Your task to perform on an android device: Do I have any events tomorrow? Image 0: 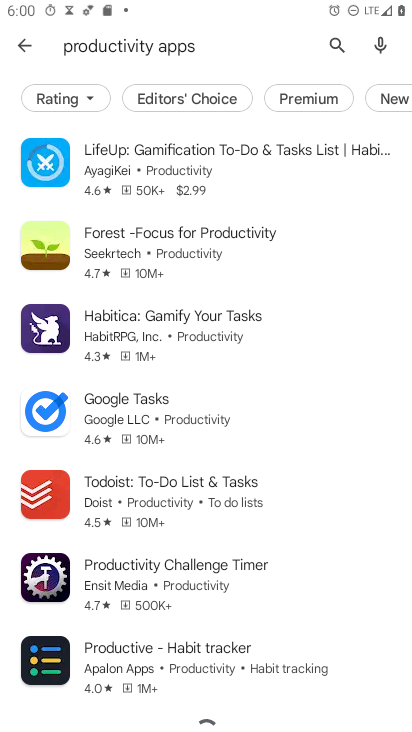
Step 0: press home button
Your task to perform on an android device: Do I have any events tomorrow? Image 1: 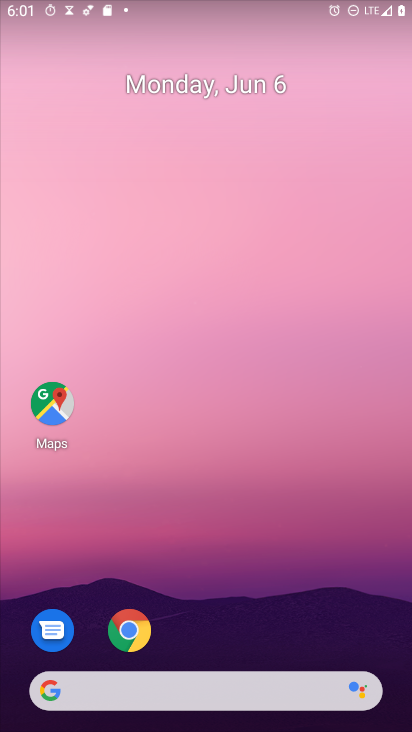
Step 1: click (189, 76)
Your task to perform on an android device: Do I have any events tomorrow? Image 2: 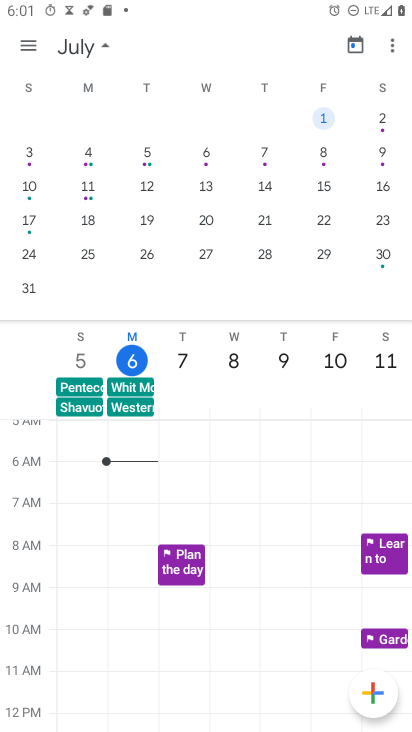
Step 2: drag from (61, 170) to (401, 165)
Your task to perform on an android device: Do I have any events tomorrow? Image 3: 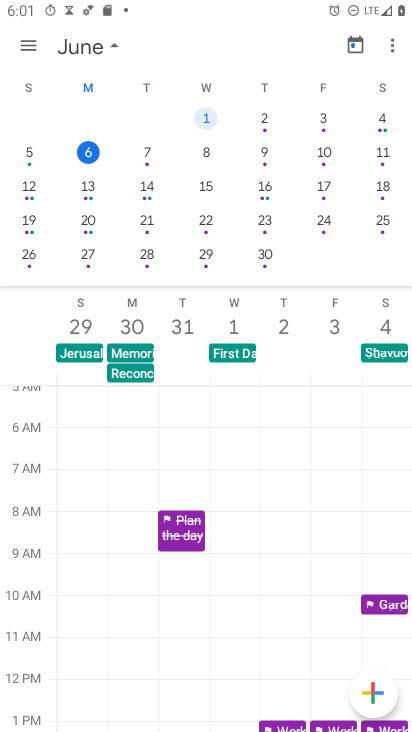
Step 3: click (165, 117)
Your task to perform on an android device: Do I have any events tomorrow? Image 4: 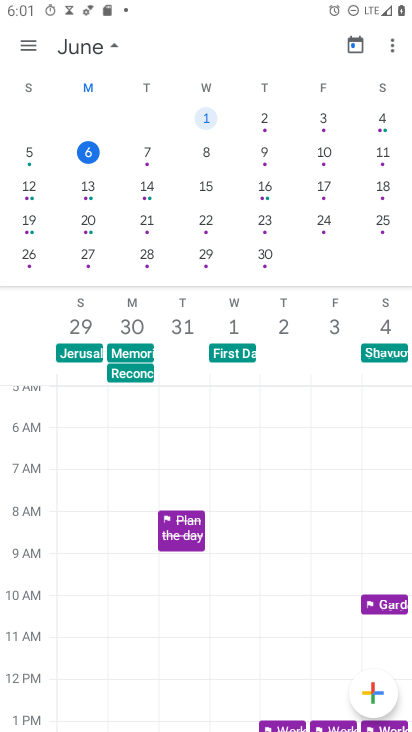
Step 4: click (55, 147)
Your task to perform on an android device: Do I have any events tomorrow? Image 5: 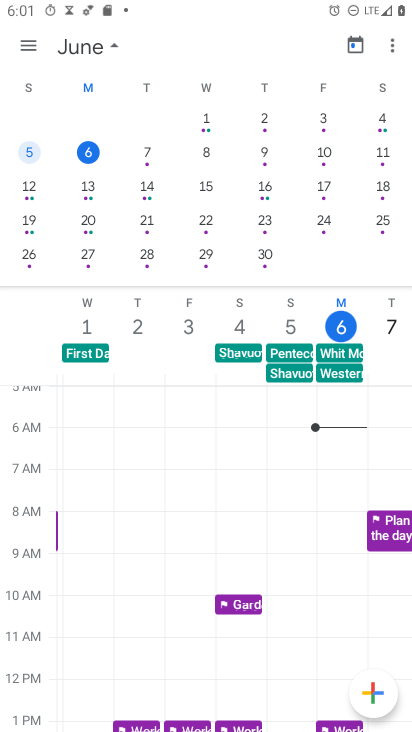
Step 5: click (36, 154)
Your task to perform on an android device: Do I have any events tomorrow? Image 6: 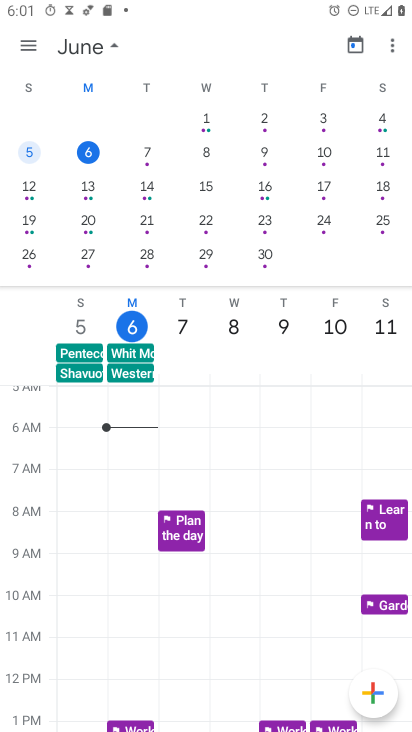
Step 6: task complete